Your task to perform on an android device: open app "Pluto TV - Live TV and Movies" (install if not already installed) Image 0: 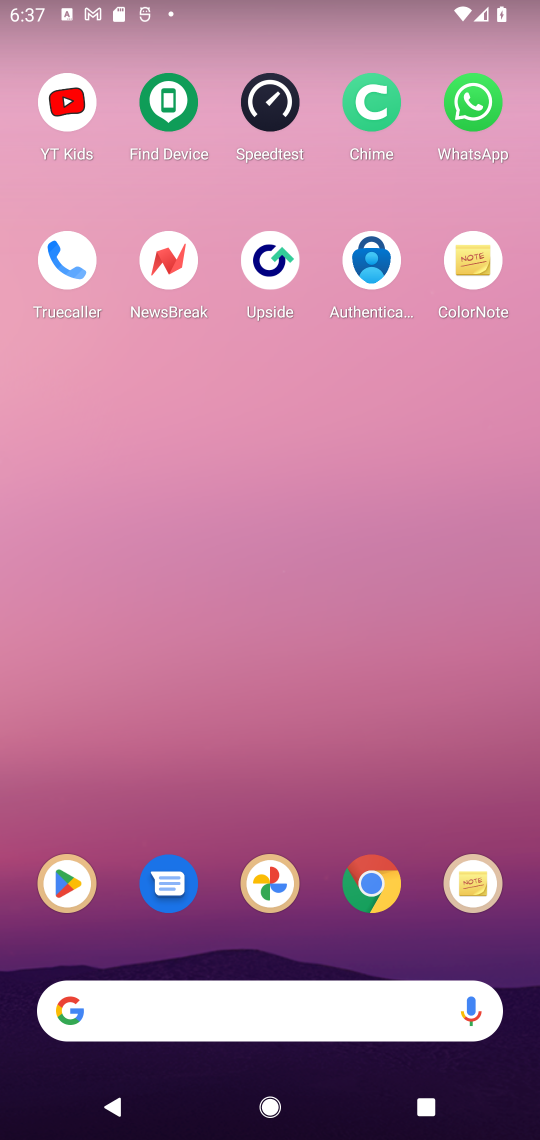
Step 0: click (61, 878)
Your task to perform on an android device: open app "Pluto TV - Live TV and Movies" (install if not already installed) Image 1: 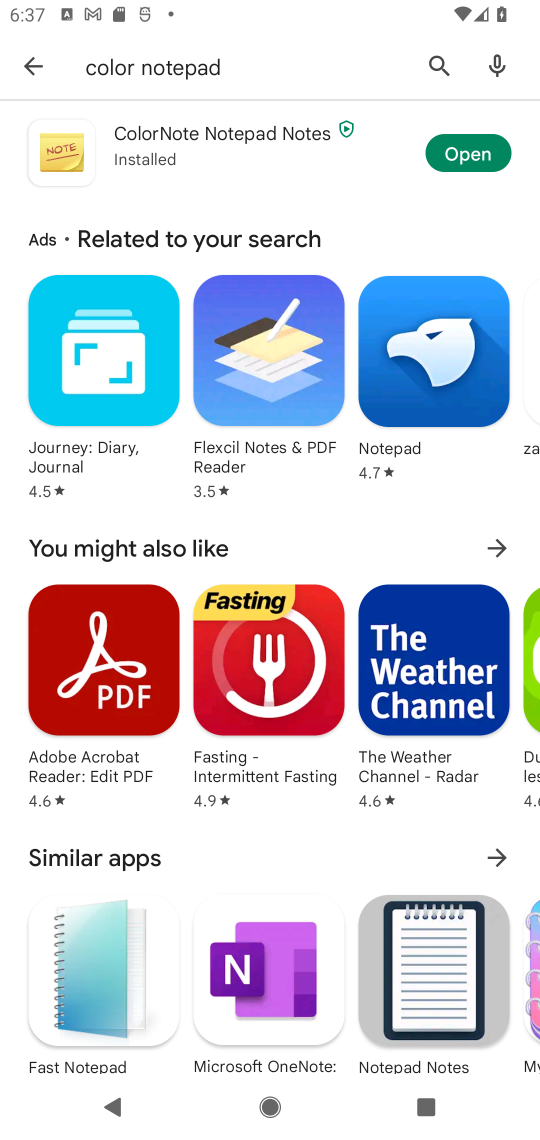
Step 1: click (433, 69)
Your task to perform on an android device: open app "Pluto TV - Live TV and Movies" (install if not already installed) Image 2: 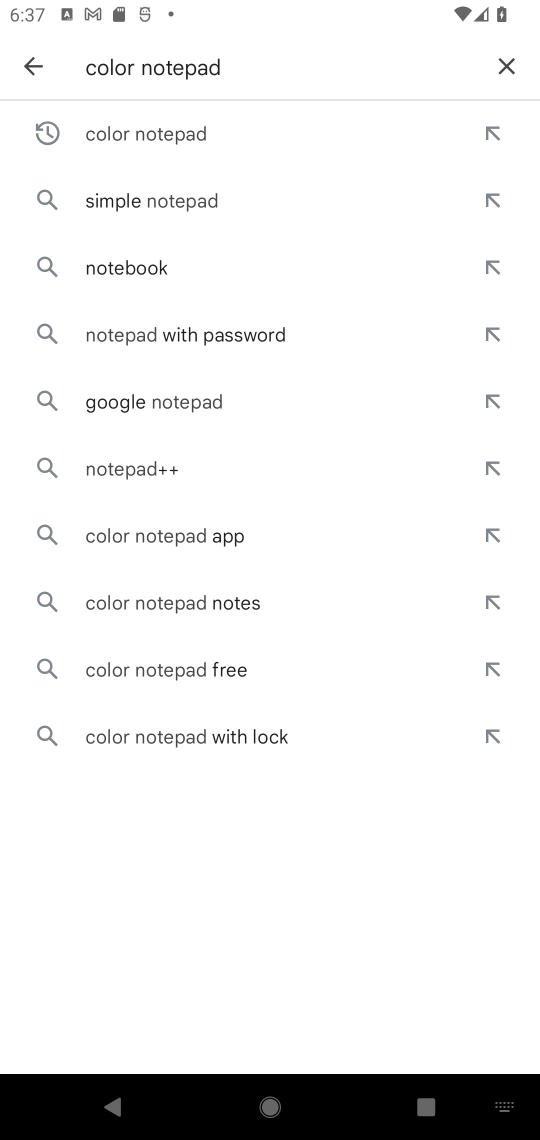
Step 2: click (501, 51)
Your task to perform on an android device: open app "Pluto TV - Live TV and Movies" (install if not already installed) Image 3: 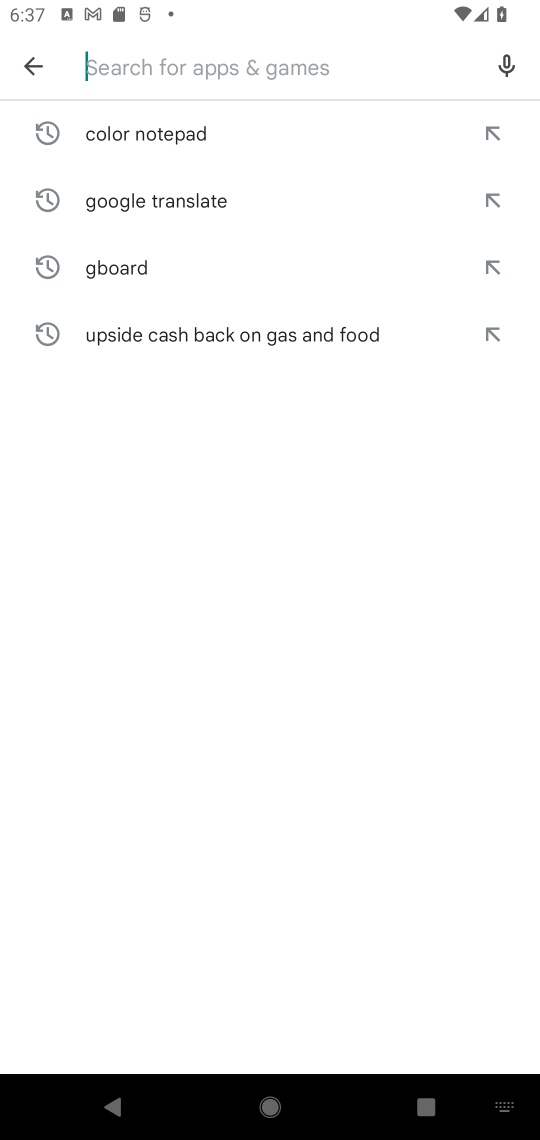
Step 3: click (253, 67)
Your task to perform on an android device: open app "Pluto TV - Live TV and Movies" (install if not already installed) Image 4: 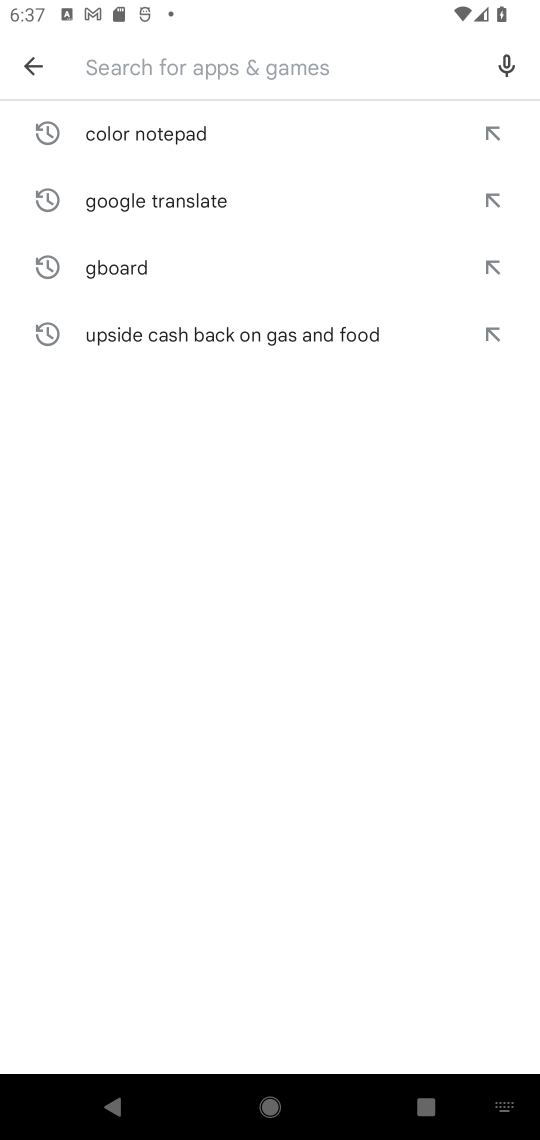
Step 4: type "pluto tv"
Your task to perform on an android device: open app "Pluto TV - Live TV and Movies" (install if not already installed) Image 5: 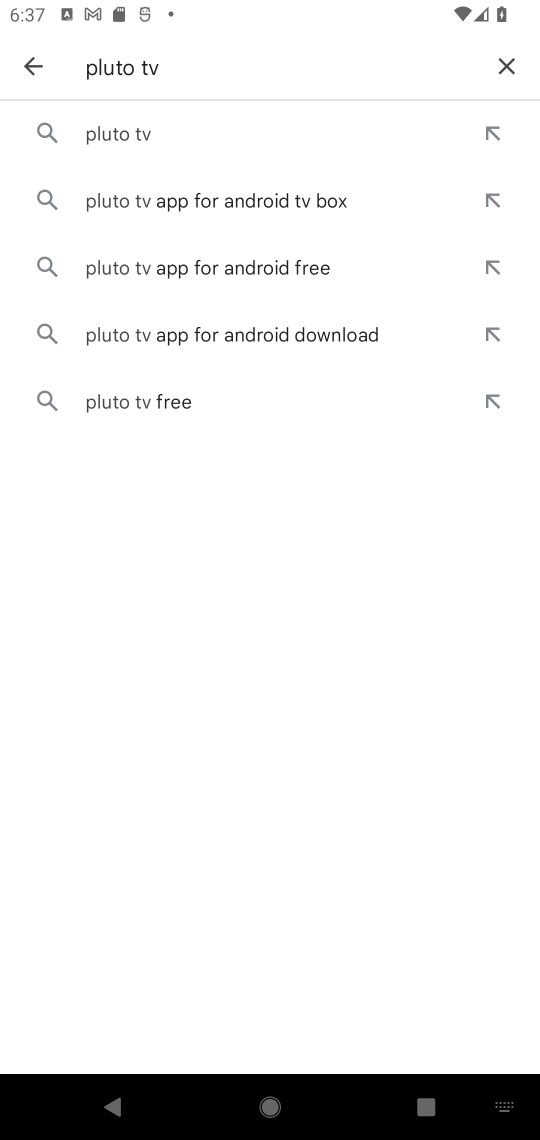
Step 5: click (117, 138)
Your task to perform on an android device: open app "Pluto TV - Live TV and Movies" (install if not already installed) Image 6: 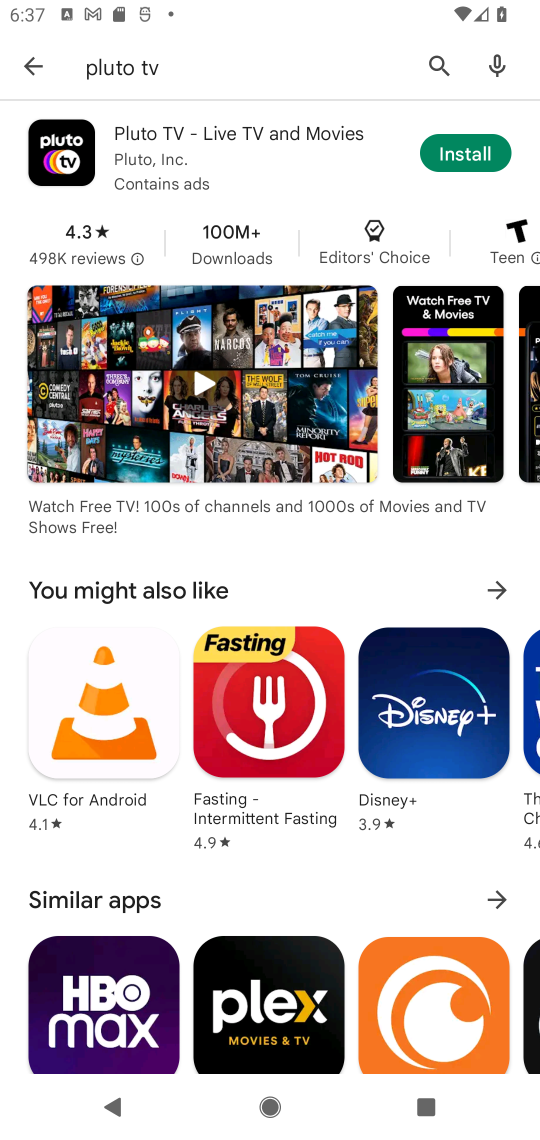
Step 6: click (465, 137)
Your task to perform on an android device: open app "Pluto TV - Live TV and Movies" (install if not already installed) Image 7: 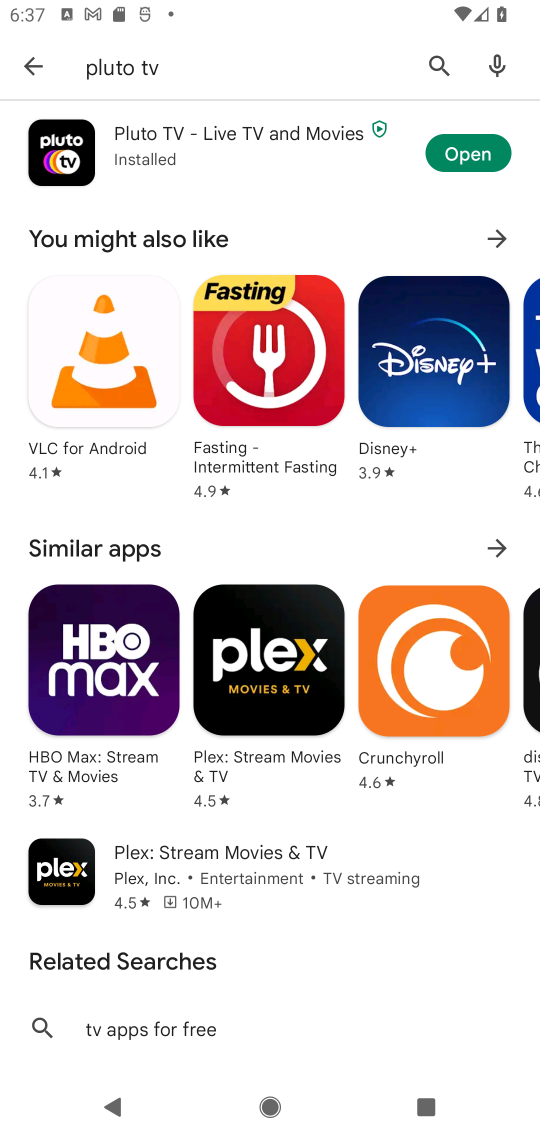
Step 7: click (452, 148)
Your task to perform on an android device: open app "Pluto TV - Live TV and Movies" (install if not already installed) Image 8: 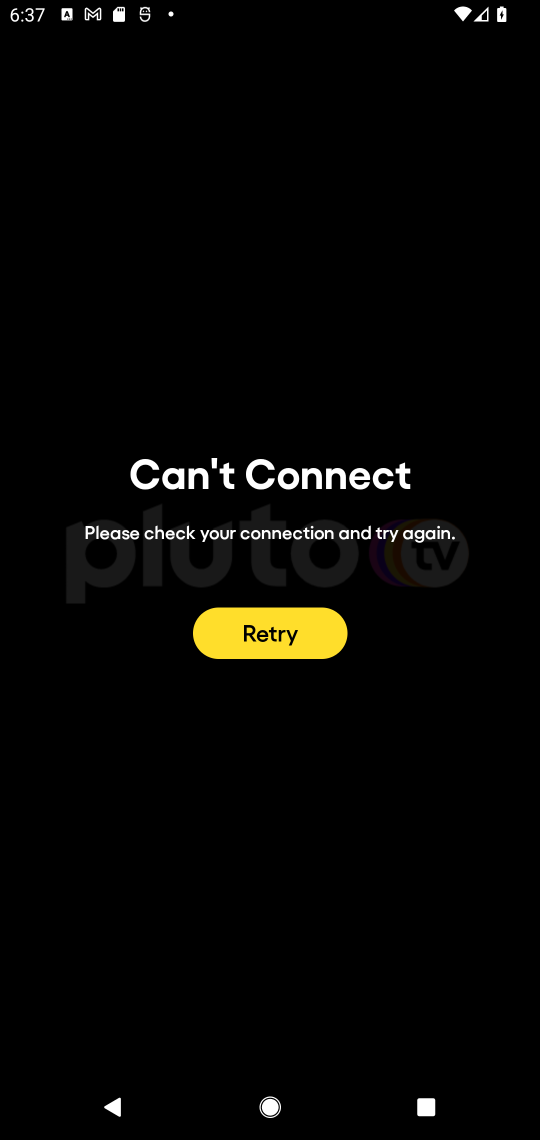
Step 8: task complete